Your task to perform on an android device: turn on improve location accuracy Image 0: 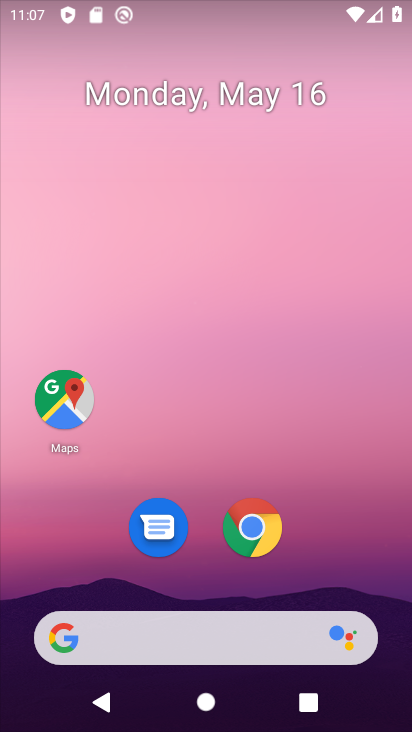
Step 0: drag from (240, 664) to (215, 227)
Your task to perform on an android device: turn on improve location accuracy Image 1: 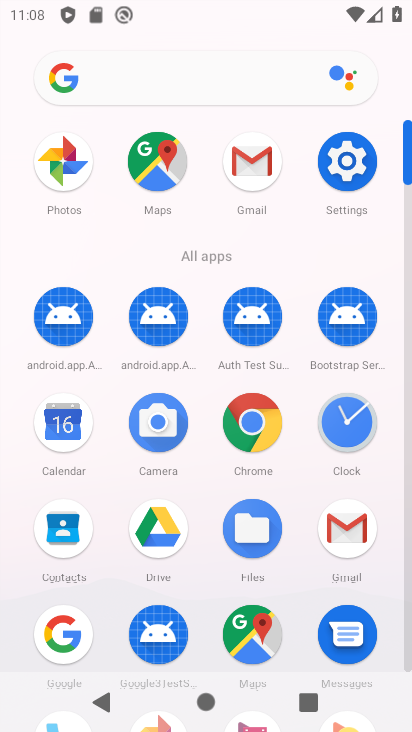
Step 1: click (348, 148)
Your task to perform on an android device: turn on improve location accuracy Image 2: 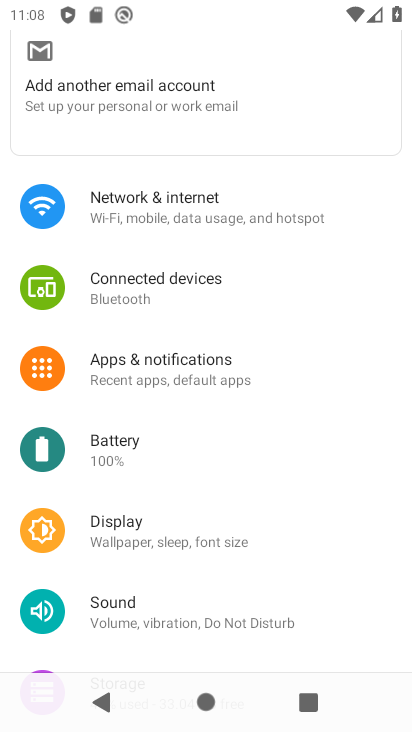
Step 2: drag from (183, 256) to (172, 349)
Your task to perform on an android device: turn on improve location accuracy Image 3: 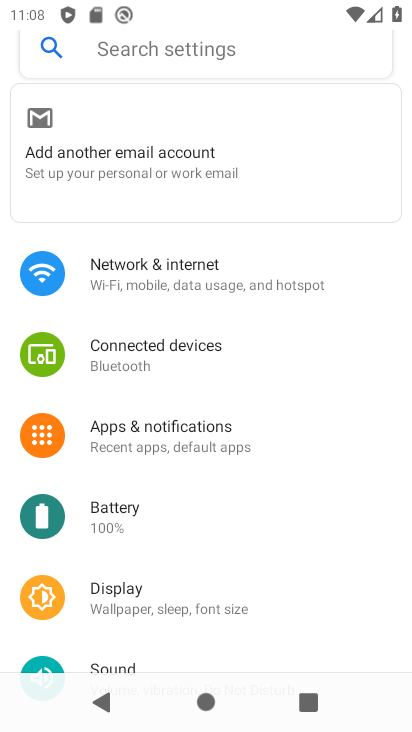
Step 3: click (189, 64)
Your task to perform on an android device: turn on improve location accuracy Image 4: 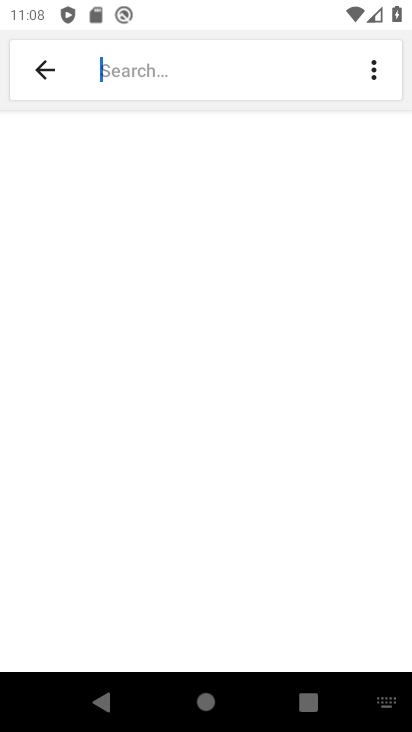
Step 4: click (380, 693)
Your task to perform on an android device: turn on improve location accuracy Image 5: 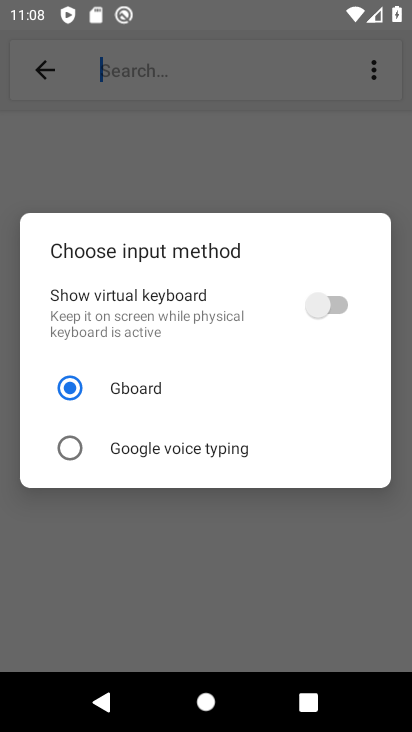
Step 5: click (337, 302)
Your task to perform on an android device: turn on improve location accuracy Image 6: 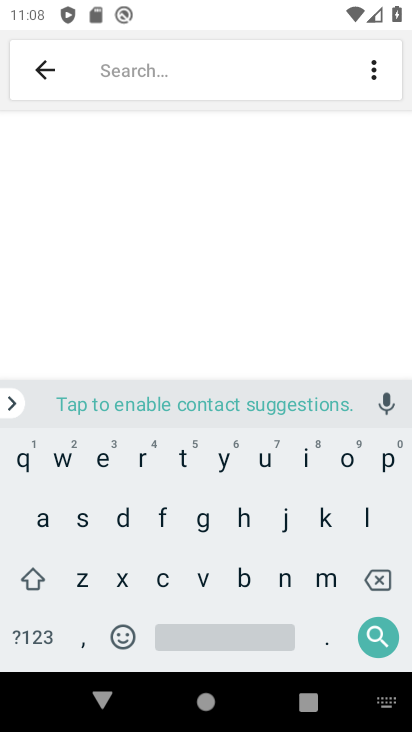
Step 6: click (366, 523)
Your task to perform on an android device: turn on improve location accuracy Image 7: 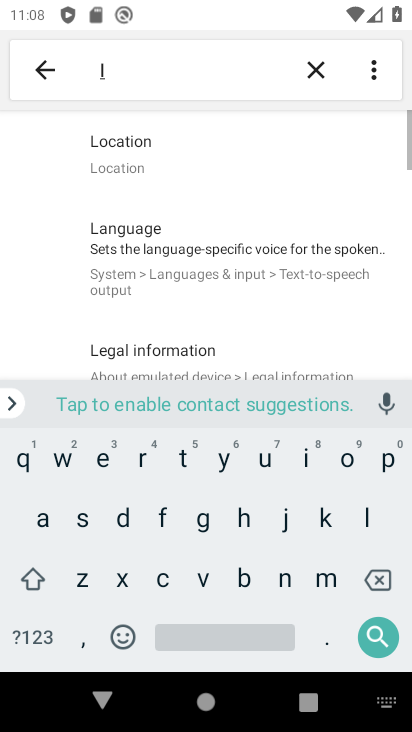
Step 7: click (345, 452)
Your task to perform on an android device: turn on improve location accuracy Image 8: 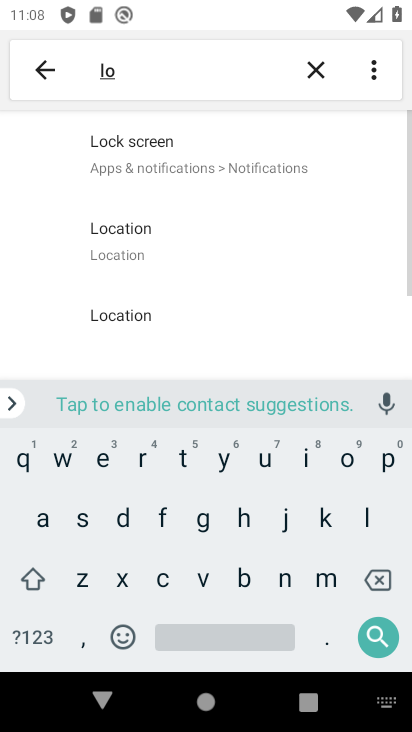
Step 8: click (151, 240)
Your task to perform on an android device: turn on improve location accuracy Image 9: 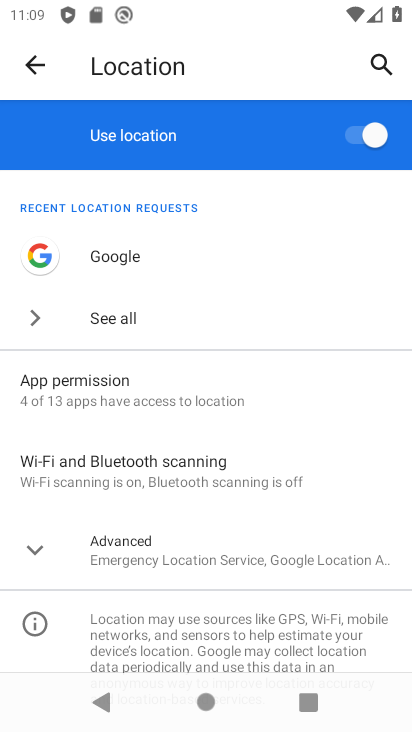
Step 9: click (31, 555)
Your task to perform on an android device: turn on improve location accuracy Image 10: 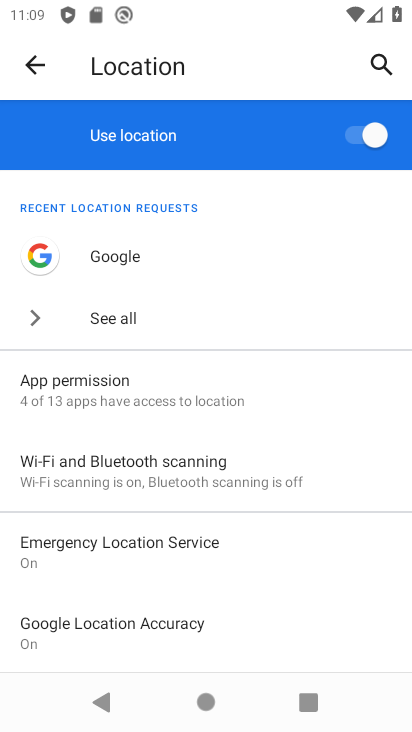
Step 10: drag from (156, 538) to (182, 426)
Your task to perform on an android device: turn on improve location accuracy Image 11: 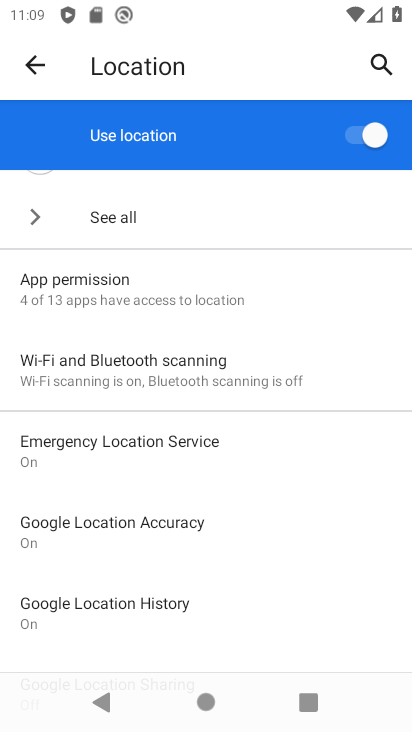
Step 11: click (175, 522)
Your task to perform on an android device: turn on improve location accuracy Image 12: 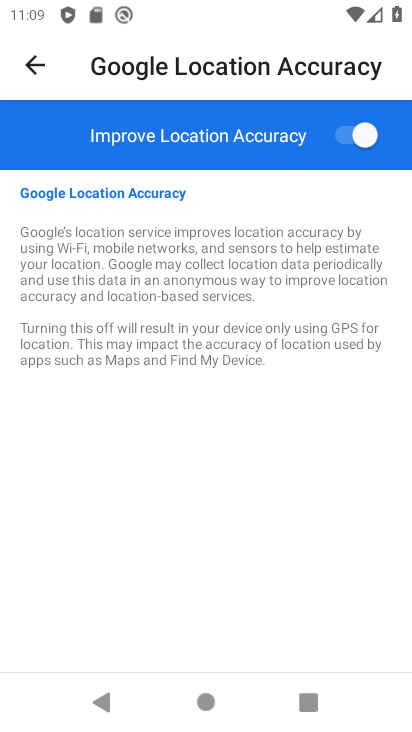
Step 12: click (360, 135)
Your task to perform on an android device: turn on improve location accuracy Image 13: 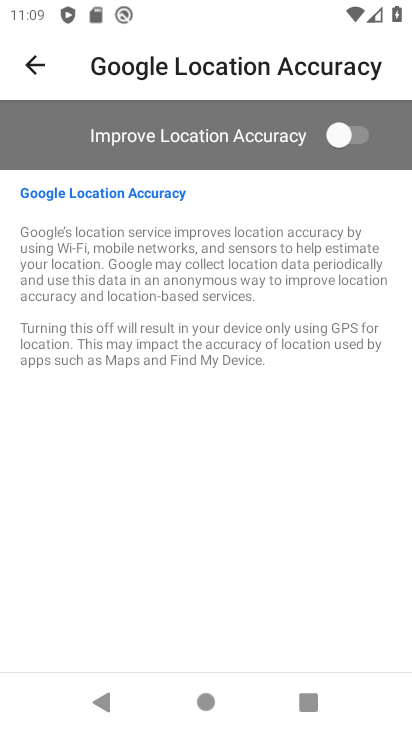
Step 13: click (356, 135)
Your task to perform on an android device: turn on improve location accuracy Image 14: 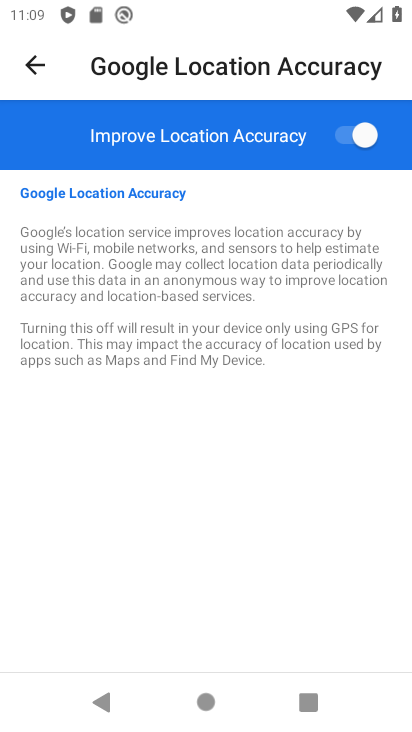
Step 14: task complete